Your task to perform on an android device: open app "ColorNote Notepad Notes" (install if not already installed) and go to login screen Image 0: 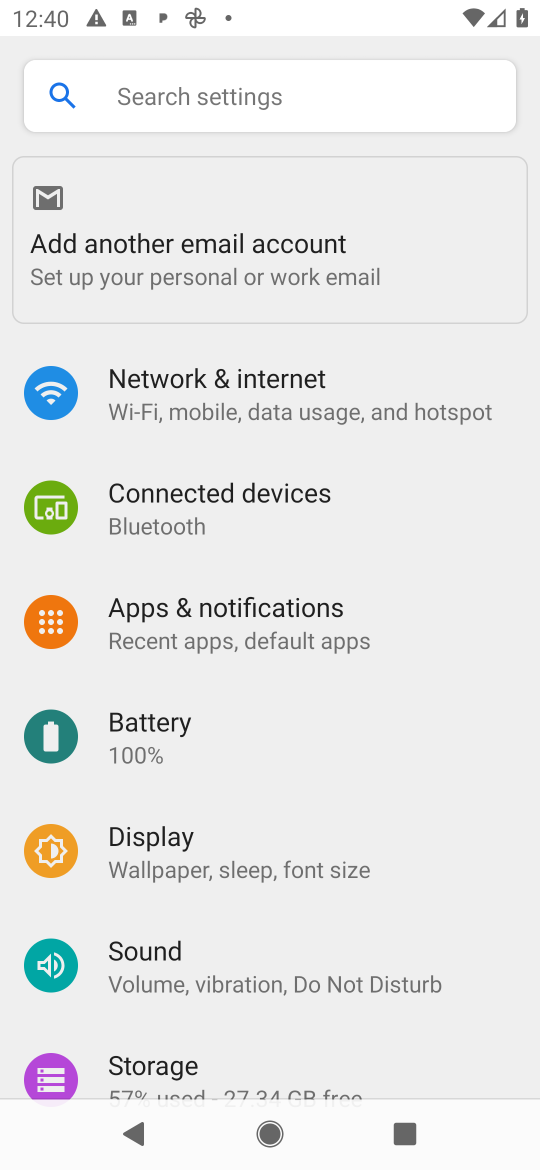
Step 0: press home button
Your task to perform on an android device: open app "ColorNote Notepad Notes" (install if not already installed) and go to login screen Image 1: 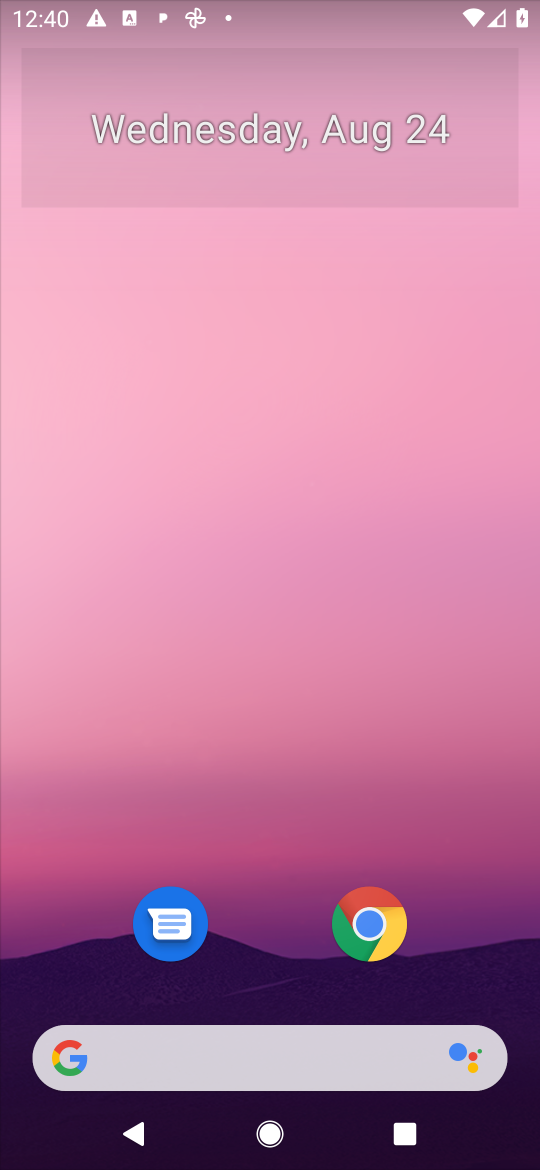
Step 1: drag from (472, 975) to (482, 146)
Your task to perform on an android device: open app "ColorNote Notepad Notes" (install if not already installed) and go to login screen Image 2: 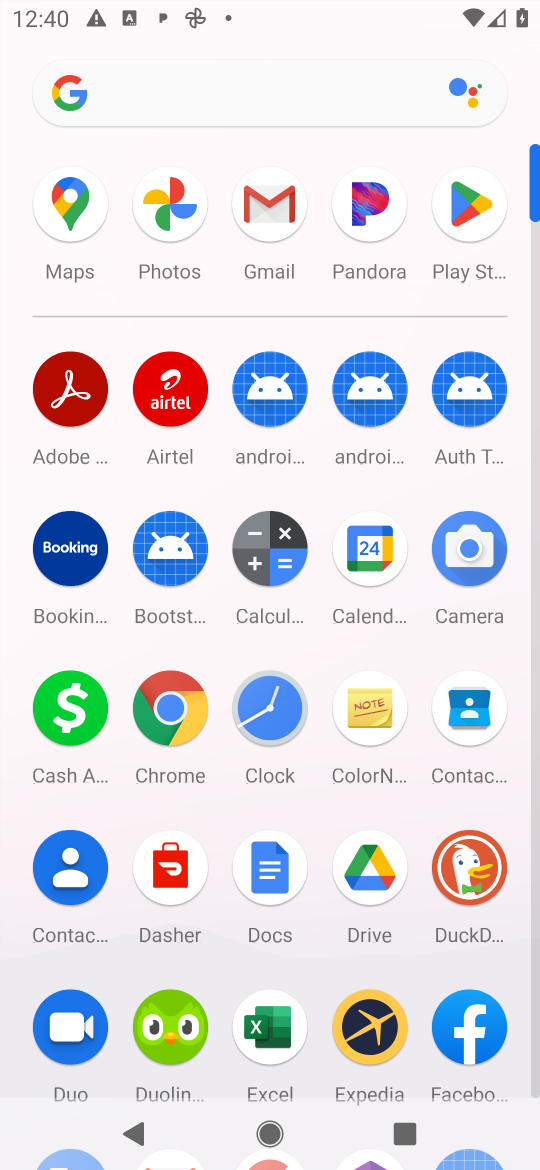
Step 2: click (474, 207)
Your task to perform on an android device: open app "ColorNote Notepad Notes" (install if not already installed) and go to login screen Image 3: 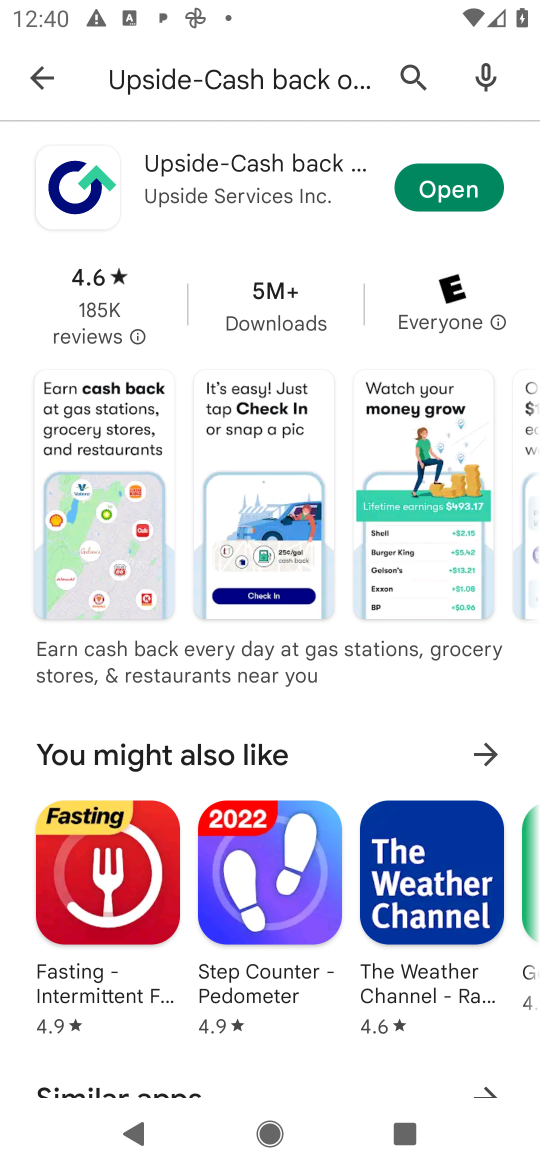
Step 3: press back button
Your task to perform on an android device: open app "ColorNote Notepad Notes" (install if not already installed) and go to login screen Image 4: 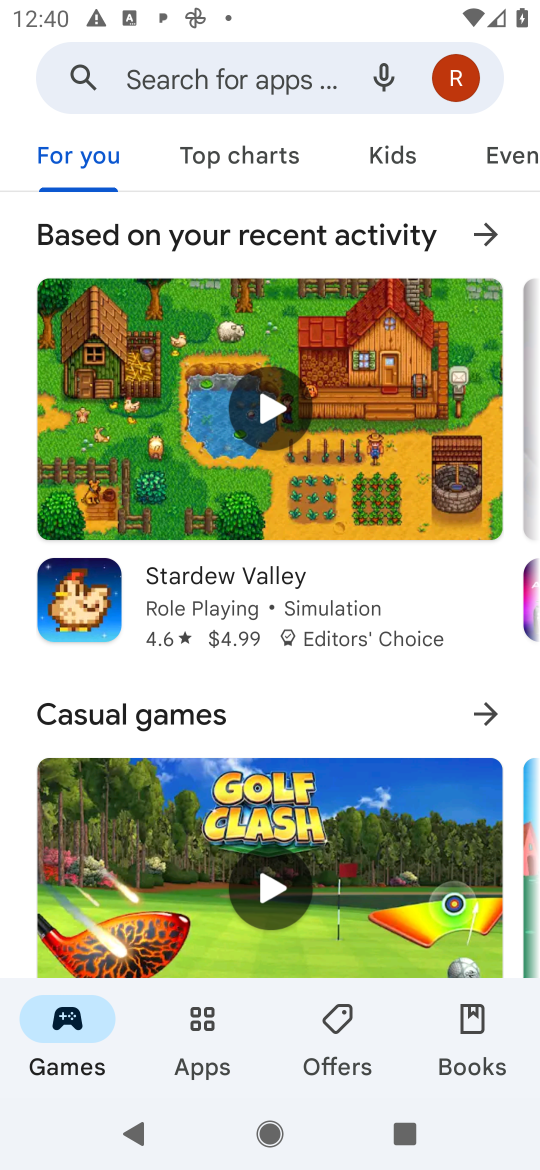
Step 4: click (274, 89)
Your task to perform on an android device: open app "ColorNote Notepad Notes" (install if not already installed) and go to login screen Image 5: 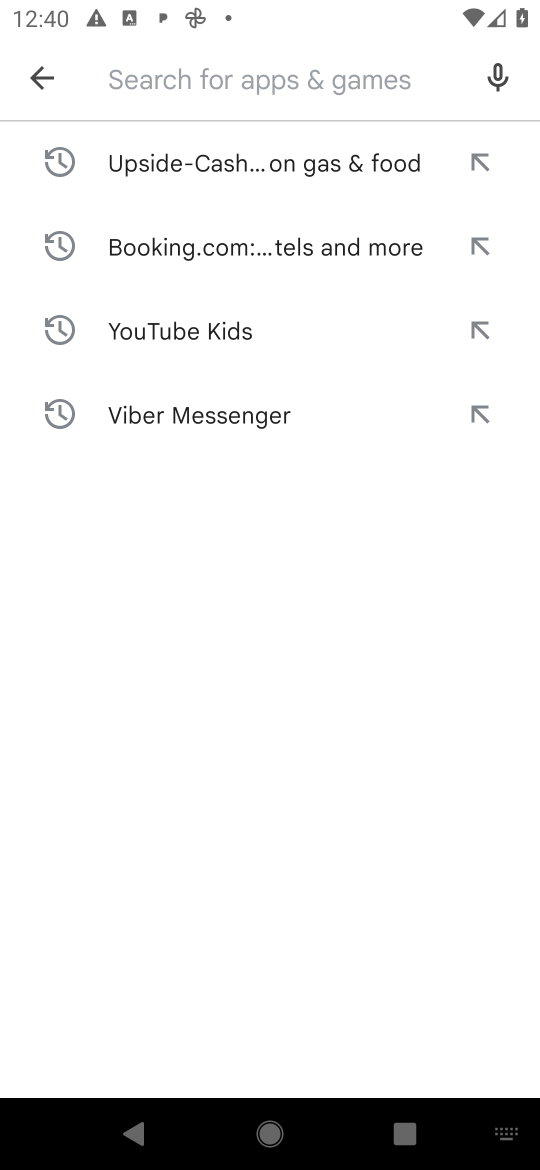
Step 5: type "ColorNote Notepad Notes"
Your task to perform on an android device: open app "ColorNote Notepad Notes" (install if not already installed) and go to login screen Image 6: 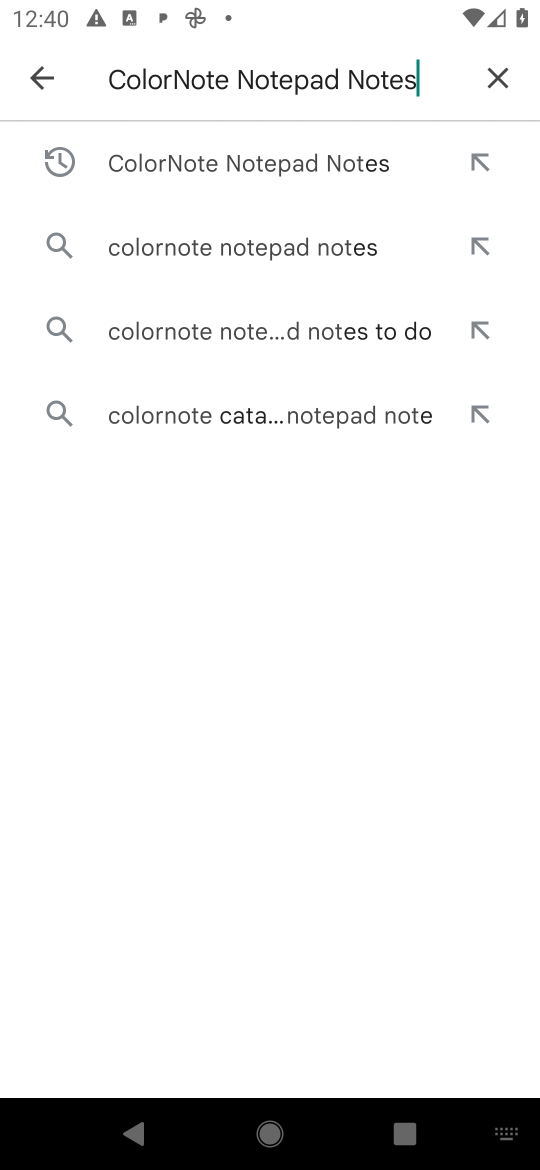
Step 6: press enter
Your task to perform on an android device: open app "ColorNote Notepad Notes" (install if not already installed) and go to login screen Image 7: 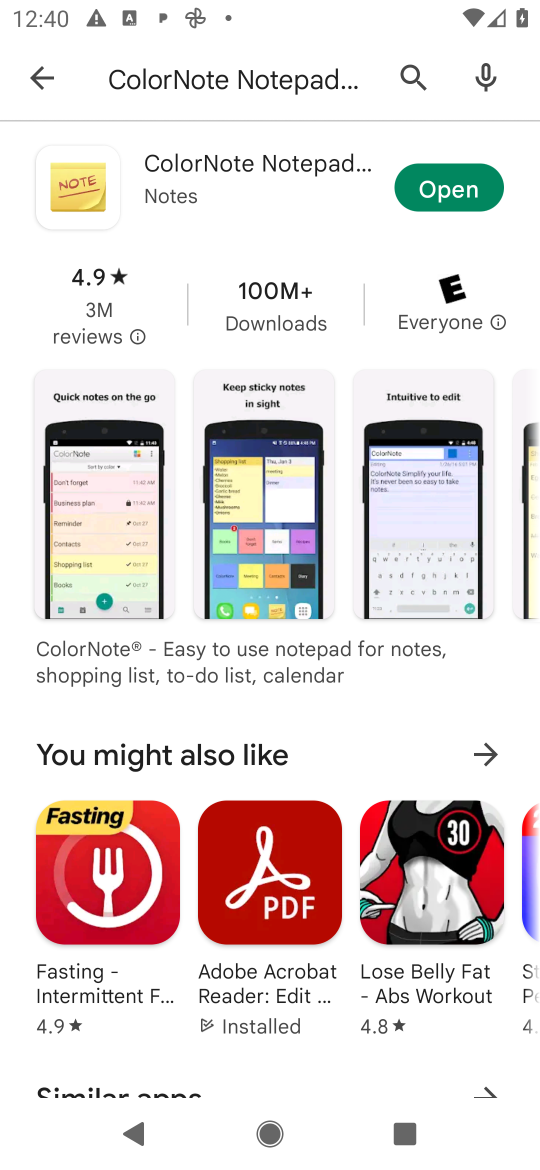
Step 7: click (453, 177)
Your task to perform on an android device: open app "ColorNote Notepad Notes" (install if not already installed) and go to login screen Image 8: 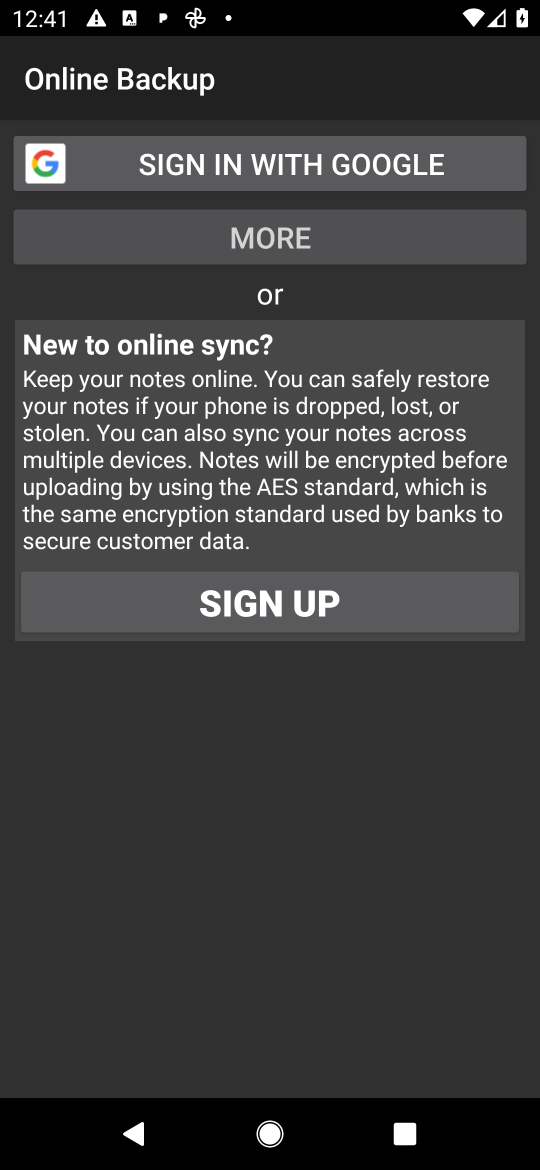
Step 8: task complete